Your task to perform on an android device: clear history in the chrome app Image 0: 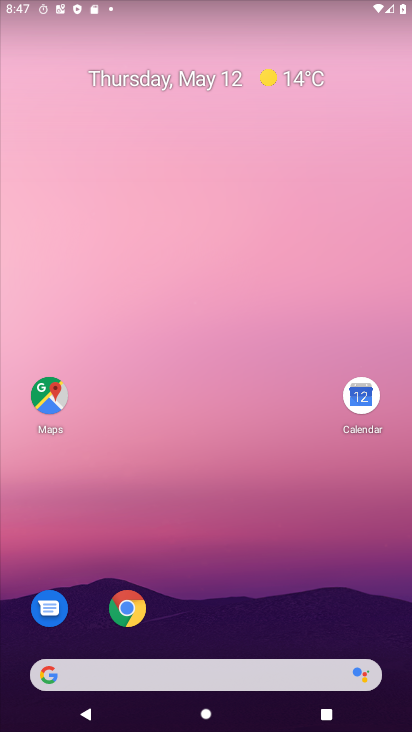
Step 0: click (140, 618)
Your task to perform on an android device: clear history in the chrome app Image 1: 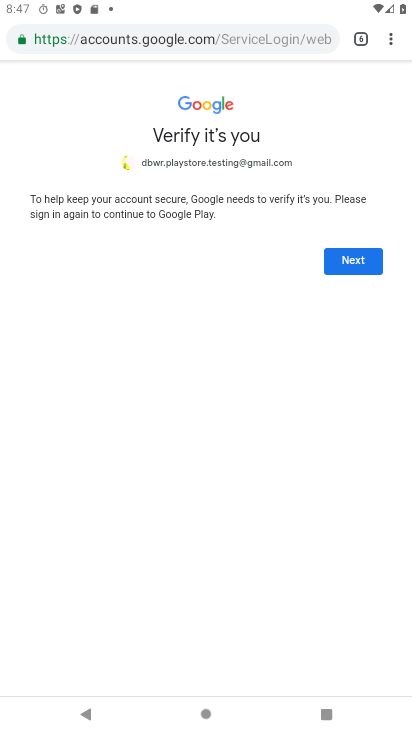
Step 1: click (397, 29)
Your task to perform on an android device: clear history in the chrome app Image 2: 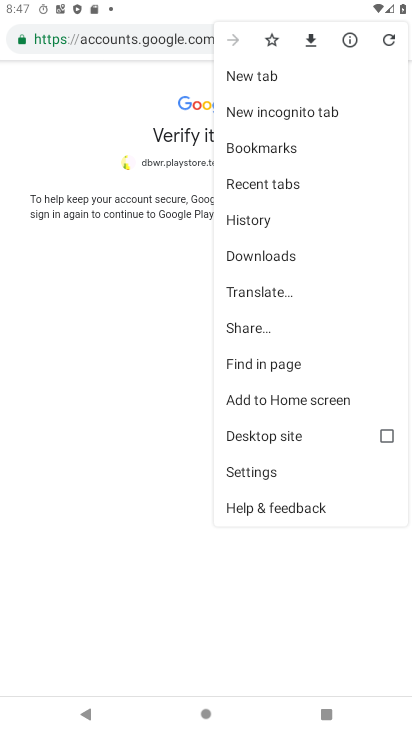
Step 2: click (265, 466)
Your task to perform on an android device: clear history in the chrome app Image 3: 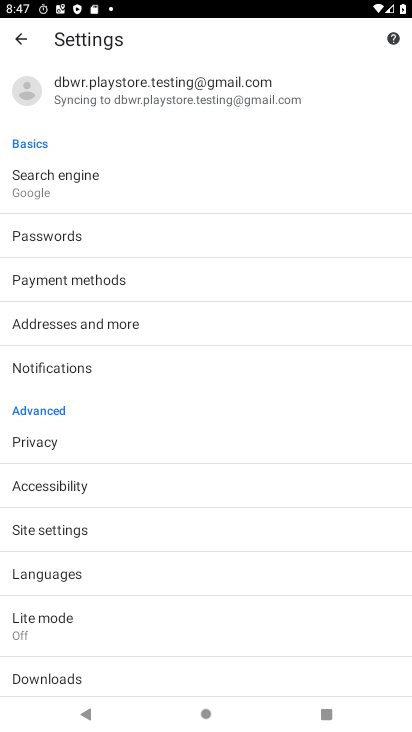
Step 3: drag from (234, 538) to (265, 46)
Your task to perform on an android device: clear history in the chrome app Image 4: 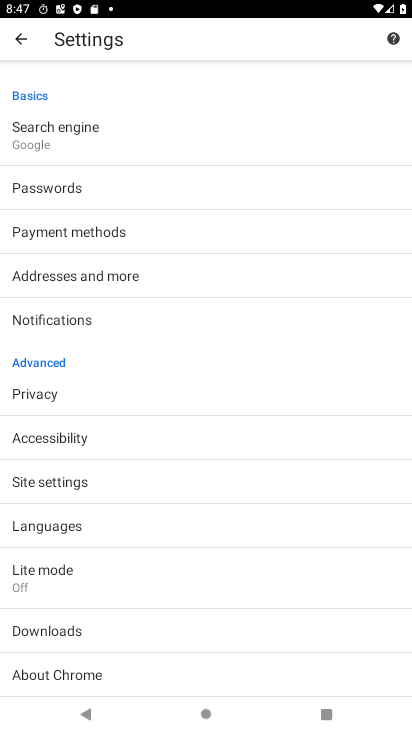
Step 4: drag from (198, 534) to (282, 149)
Your task to perform on an android device: clear history in the chrome app Image 5: 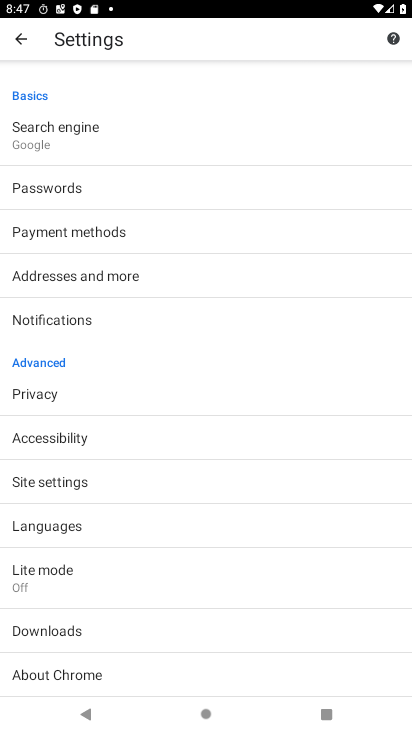
Step 5: click (161, 476)
Your task to perform on an android device: clear history in the chrome app Image 6: 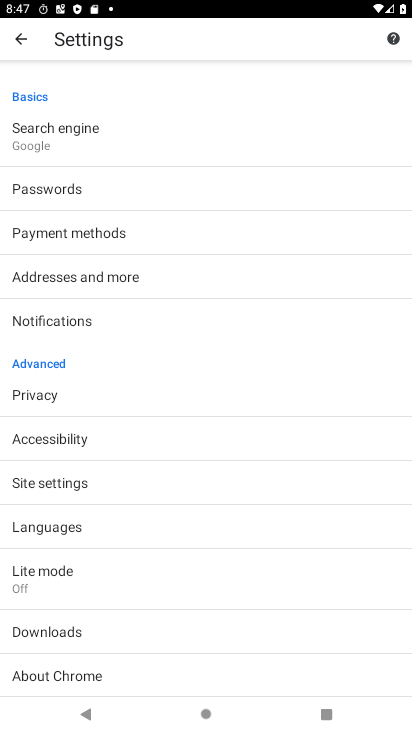
Step 6: click (158, 472)
Your task to perform on an android device: clear history in the chrome app Image 7: 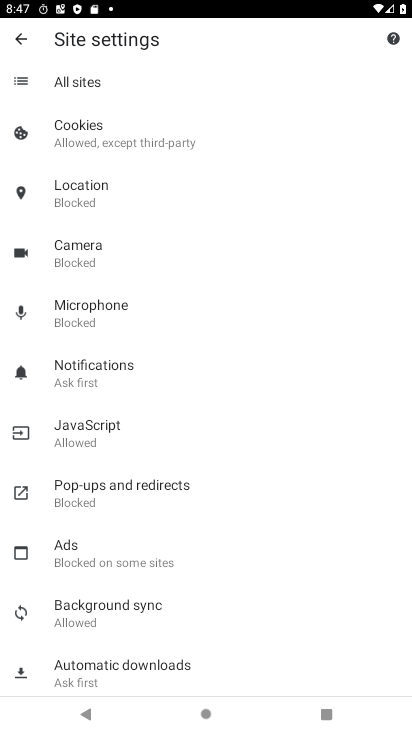
Step 7: drag from (233, 574) to (228, 240)
Your task to perform on an android device: clear history in the chrome app Image 8: 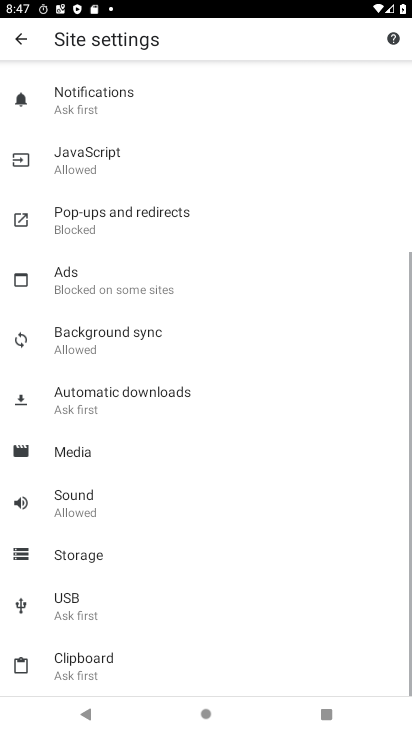
Step 8: drag from (184, 607) to (254, 223)
Your task to perform on an android device: clear history in the chrome app Image 9: 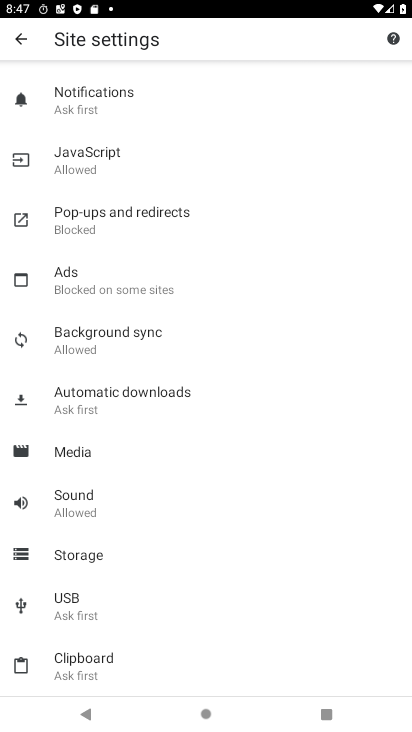
Step 9: drag from (284, 248) to (249, 673)
Your task to perform on an android device: clear history in the chrome app Image 10: 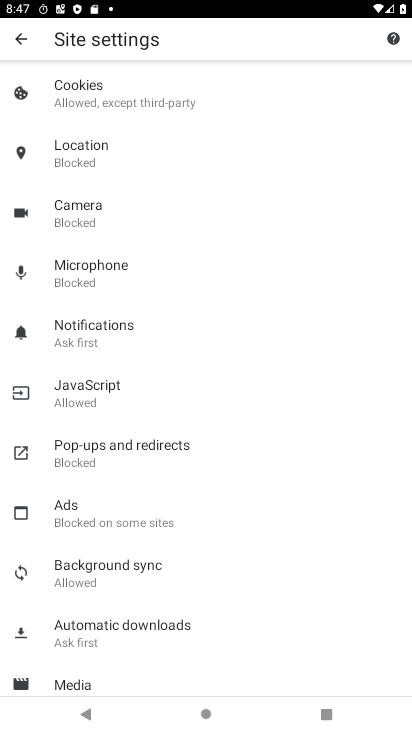
Step 10: drag from (206, 170) to (229, 543)
Your task to perform on an android device: clear history in the chrome app Image 11: 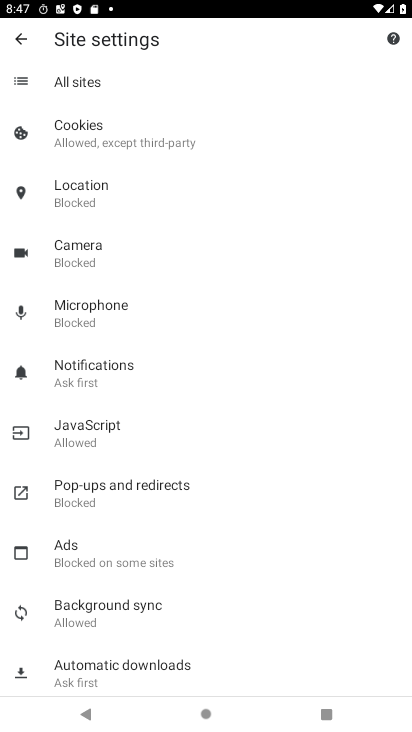
Step 11: press back button
Your task to perform on an android device: clear history in the chrome app Image 12: 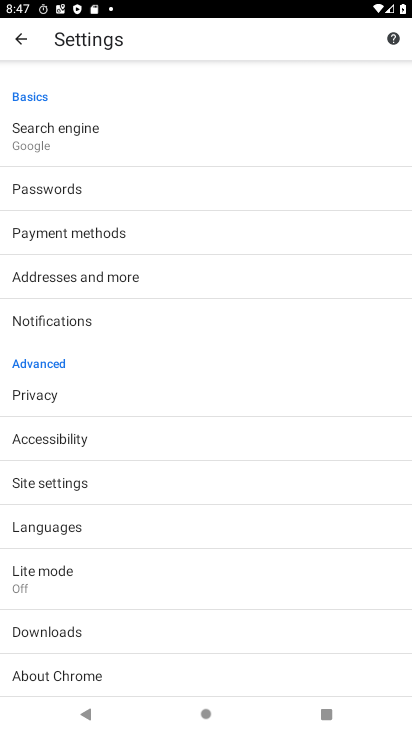
Step 12: drag from (188, 617) to (206, 199)
Your task to perform on an android device: clear history in the chrome app Image 13: 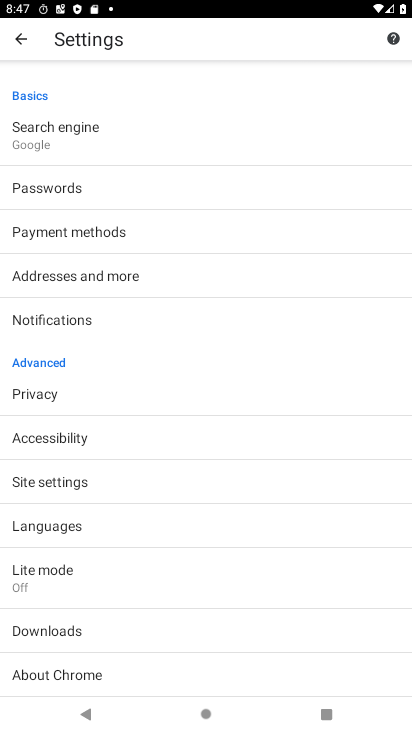
Step 13: press back button
Your task to perform on an android device: clear history in the chrome app Image 14: 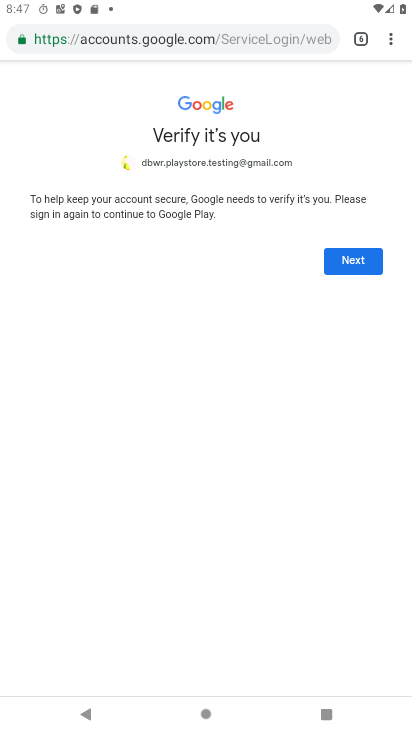
Step 14: click (362, 37)
Your task to perform on an android device: clear history in the chrome app Image 15: 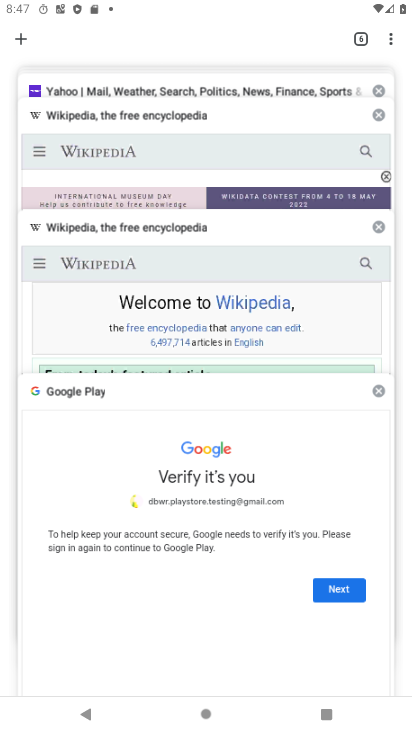
Step 15: click (131, 450)
Your task to perform on an android device: clear history in the chrome app Image 16: 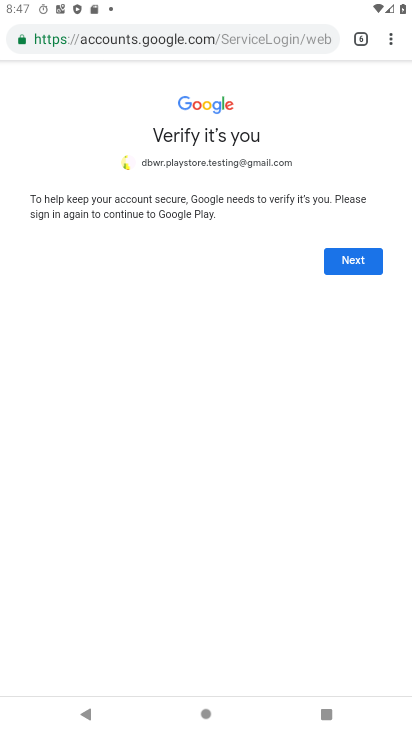
Step 16: task complete